Your task to perform on an android device: Open location settings Image 0: 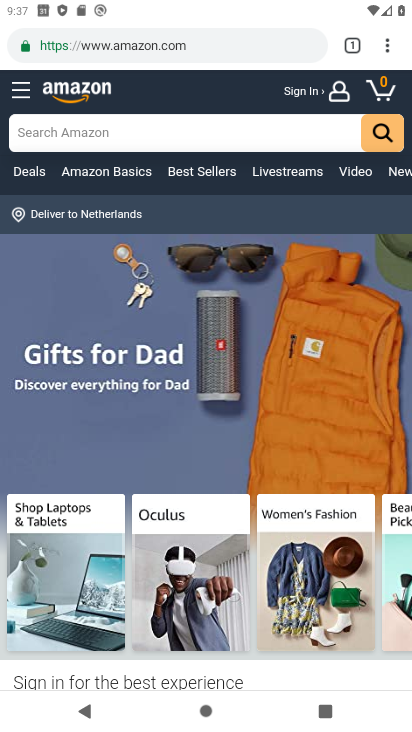
Step 0: press home button
Your task to perform on an android device: Open location settings Image 1: 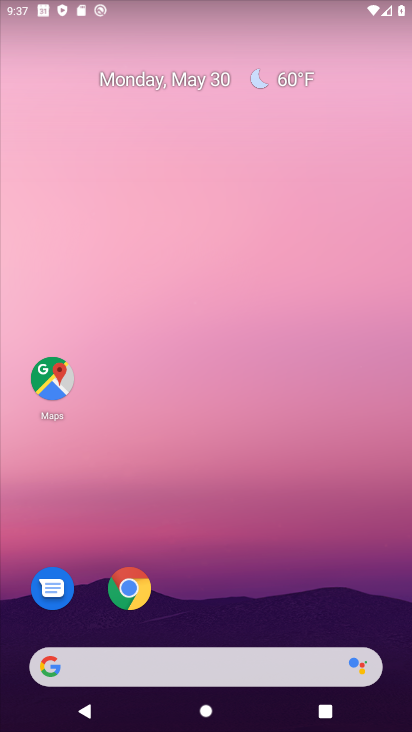
Step 1: drag from (231, 488) to (241, 192)
Your task to perform on an android device: Open location settings Image 2: 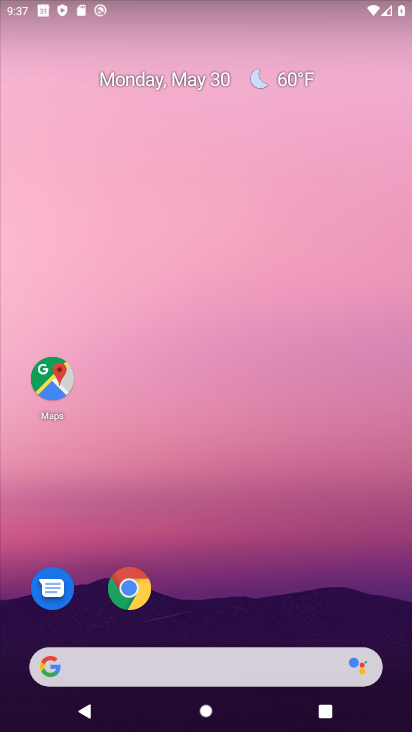
Step 2: drag from (215, 291) to (361, 0)
Your task to perform on an android device: Open location settings Image 3: 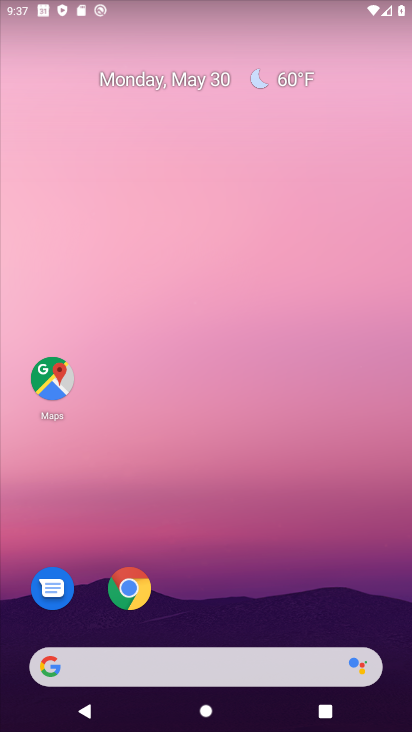
Step 3: drag from (220, 640) to (309, 27)
Your task to perform on an android device: Open location settings Image 4: 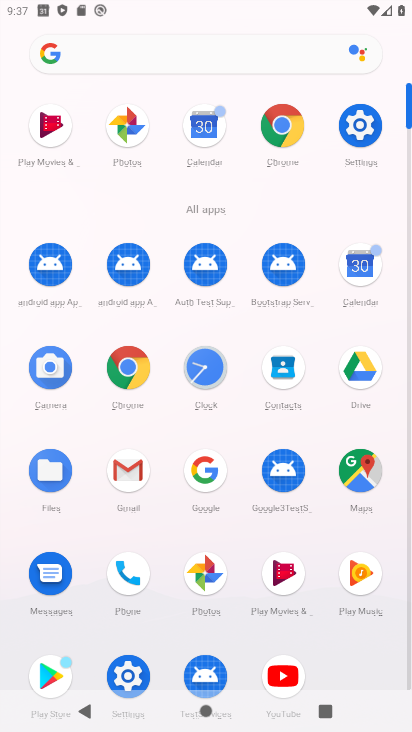
Step 4: click (360, 131)
Your task to perform on an android device: Open location settings Image 5: 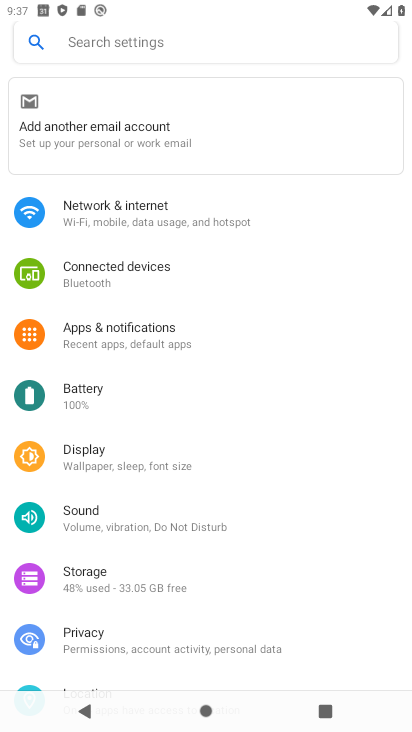
Step 5: drag from (120, 559) to (147, 283)
Your task to perform on an android device: Open location settings Image 6: 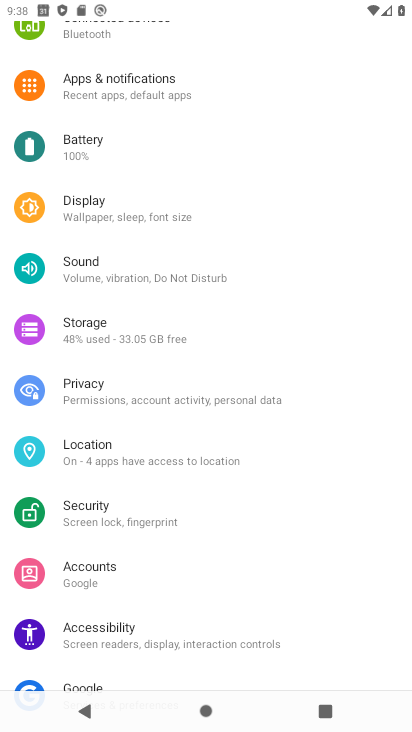
Step 6: click (130, 449)
Your task to perform on an android device: Open location settings Image 7: 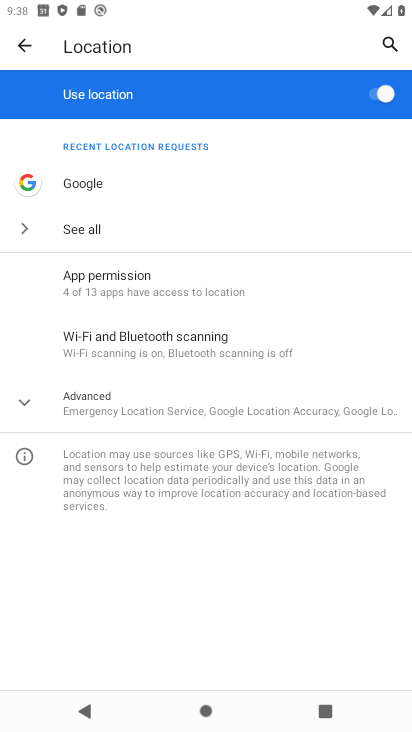
Step 7: click (129, 407)
Your task to perform on an android device: Open location settings Image 8: 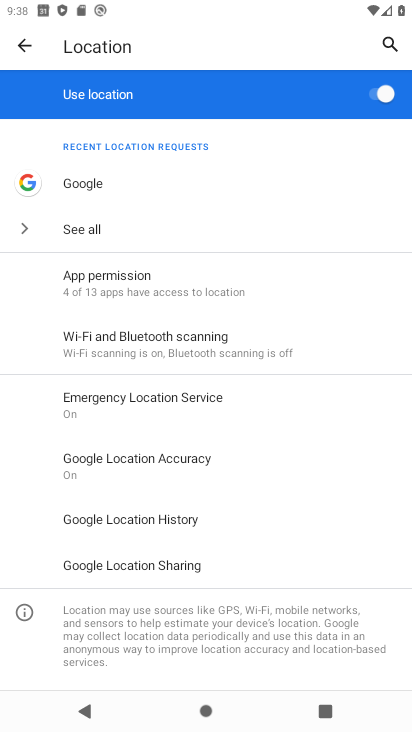
Step 8: task complete